Your task to perform on an android device: set the stopwatch Image 0: 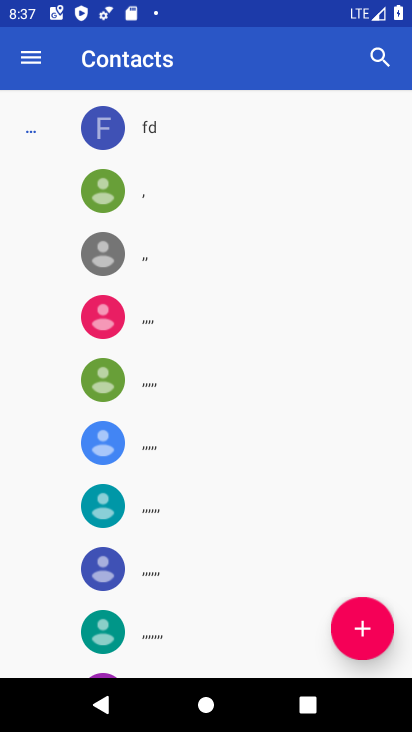
Step 0: press home button
Your task to perform on an android device: set the stopwatch Image 1: 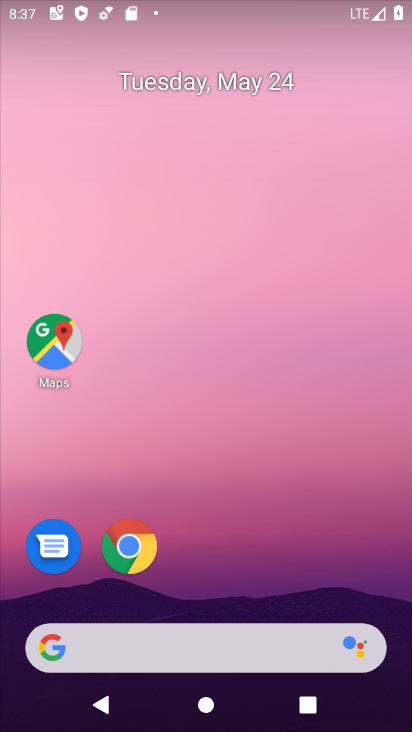
Step 1: drag from (256, 551) to (249, 17)
Your task to perform on an android device: set the stopwatch Image 2: 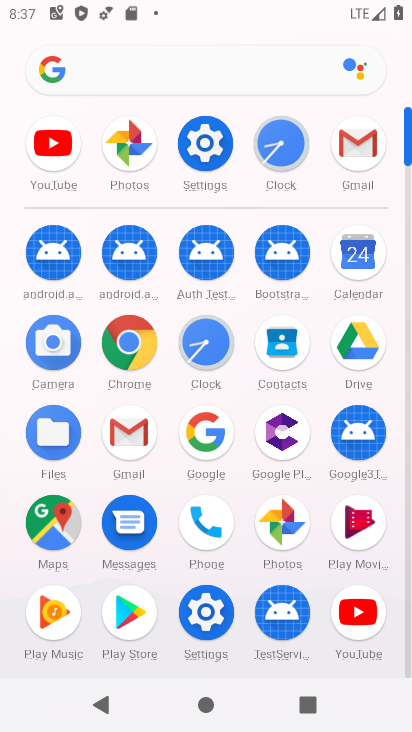
Step 2: click (285, 131)
Your task to perform on an android device: set the stopwatch Image 3: 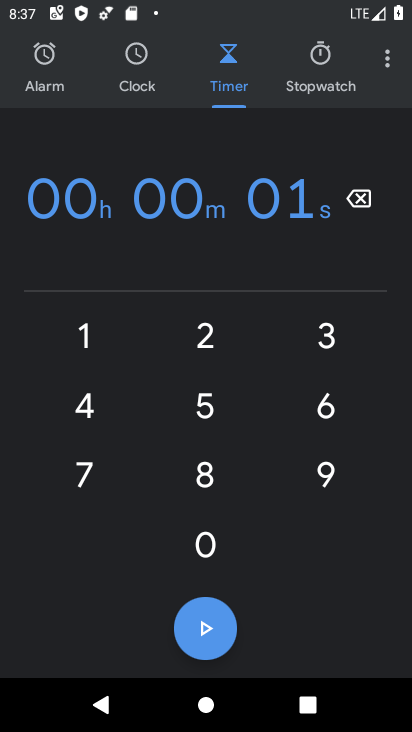
Step 3: click (312, 56)
Your task to perform on an android device: set the stopwatch Image 4: 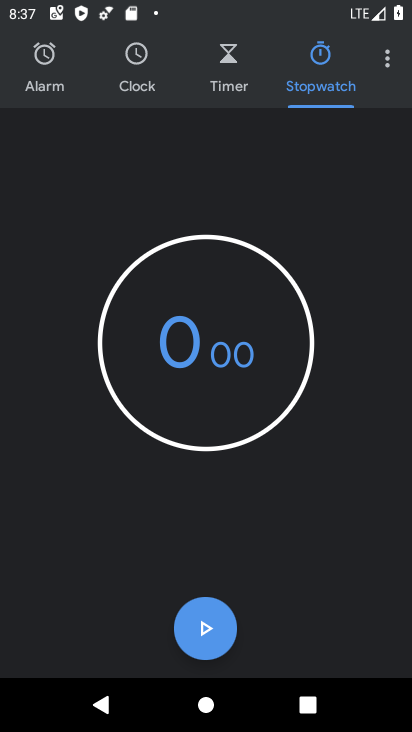
Step 4: task complete